Your task to perform on an android device: turn on location history Image 0: 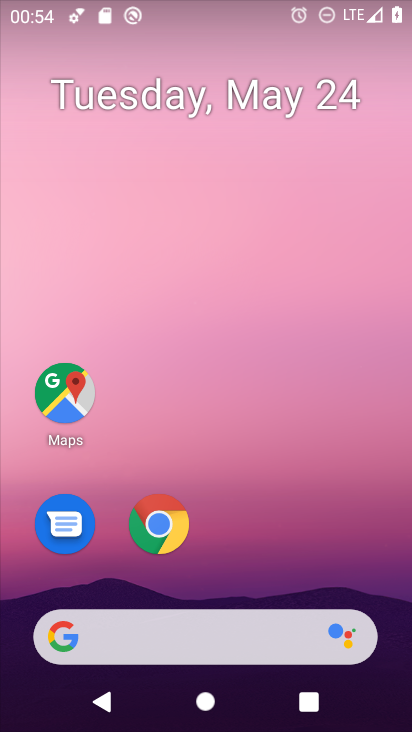
Step 0: drag from (200, 578) to (208, 196)
Your task to perform on an android device: turn on location history Image 1: 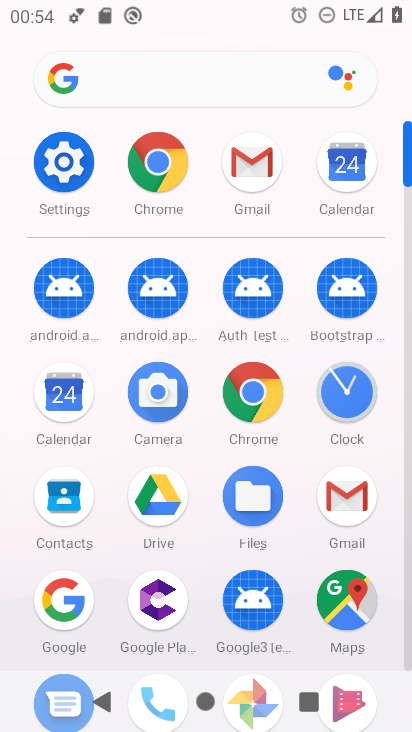
Step 1: click (65, 152)
Your task to perform on an android device: turn on location history Image 2: 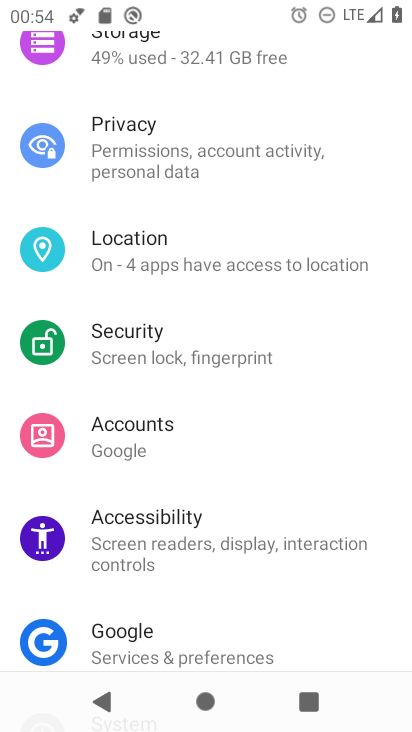
Step 2: drag from (205, 533) to (208, 410)
Your task to perform on an android device: turn on location history Image 3: 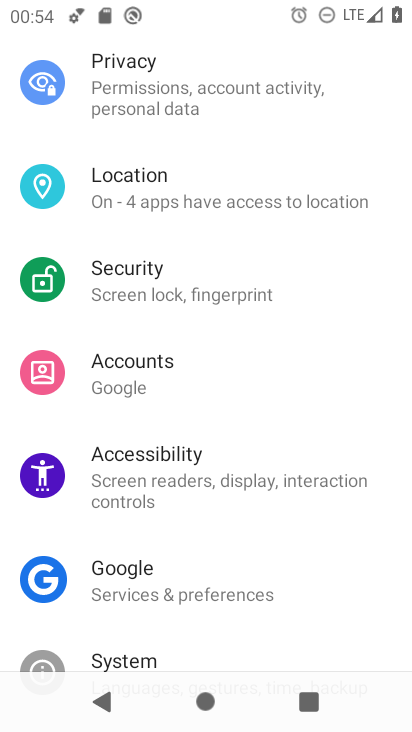
Step 3: click (164, 179)
Your task to perform on an android device: turn on location history Image 4: 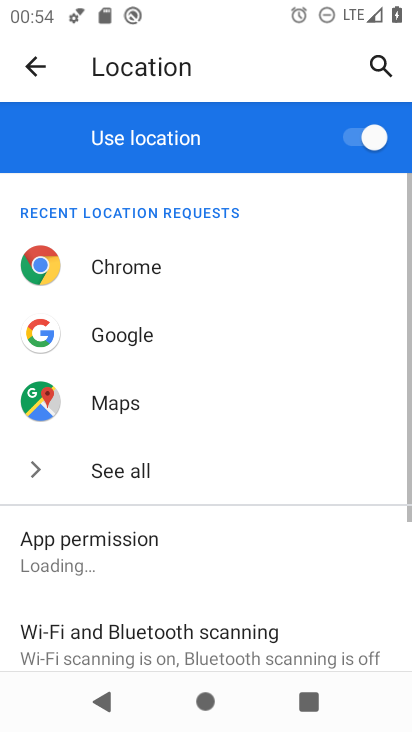
Step 4: drag from (245, 596) to (242, 317)
Your task to perform on an android device: turn on location history Image 5: 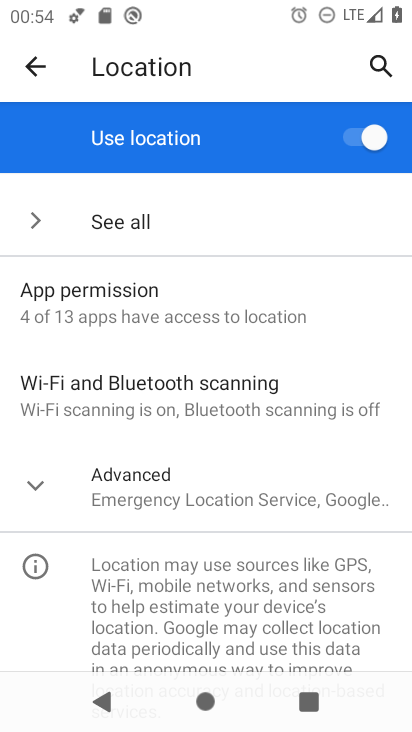
Step 5: click (224, 476)
Your task to perform on an android device: turn on location history Image 6: 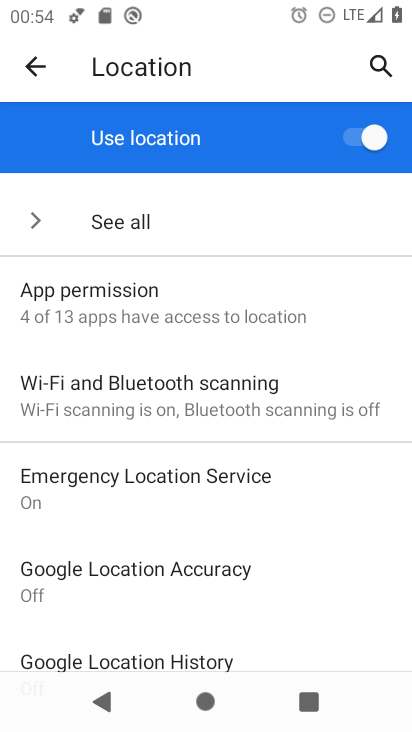
Step 6: click (195, 642)
Your task to perform on an android device: turn on location history Image 7: 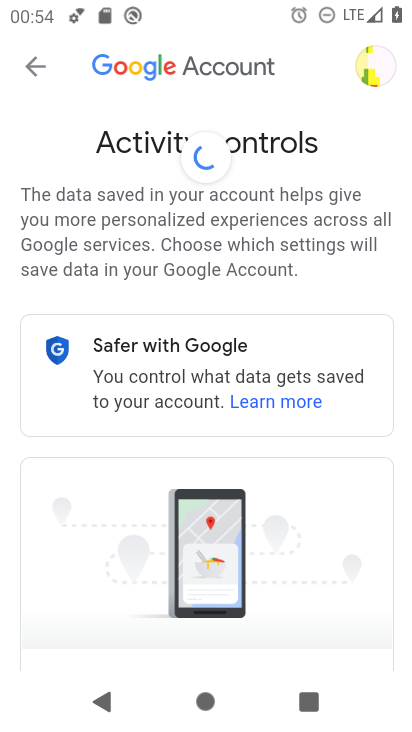
Step 7: task complete